Your task to perform on an android device: turn off smart reply in the gmail app Image 0: 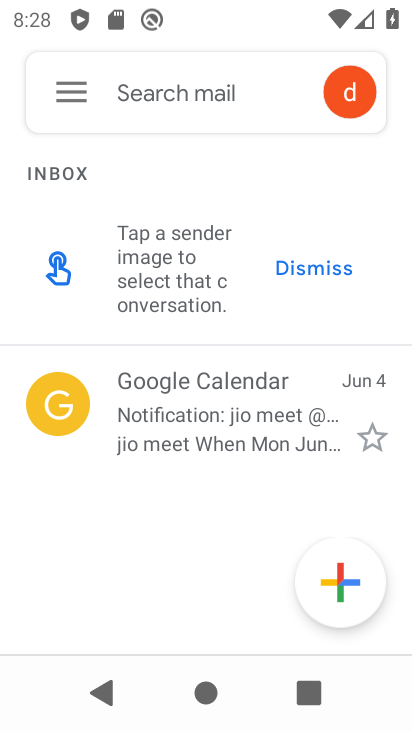
Step 0: press home button
Your task to perform on an android device: turn off smart reply in the gmail app Image 1: 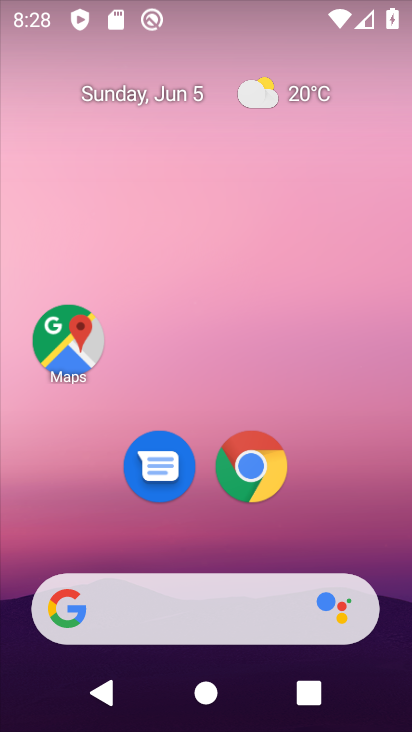
Step 1: drag from (183, 543) to (190, 350)
Your task to perform on an android device: turn off smart reply in the gmail app Image 2: 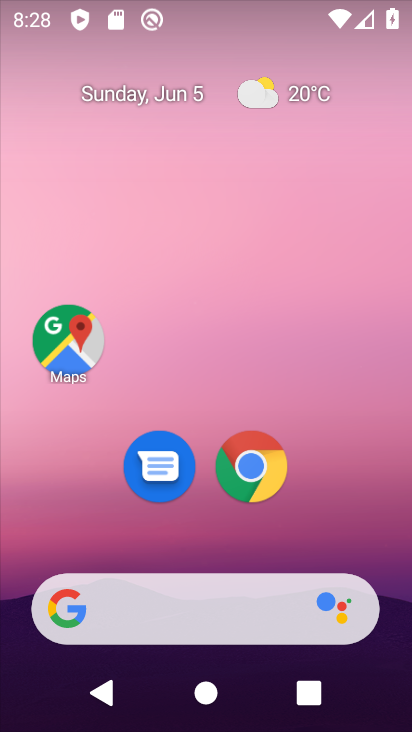
Step 2: drag from (192, 538) to (189, 81)
Your task to perform on an android device: turn off smart reply in the gmail app Image 3: 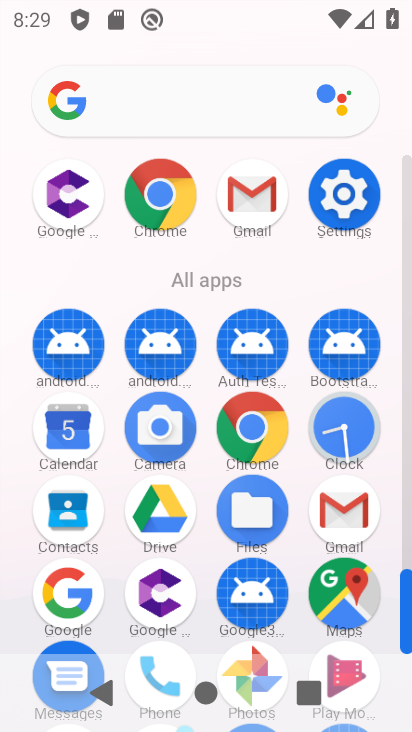
Step 3: click (324, 516)
Your task to perform on an android device: turn off smart reply in the gmail app Image 4: 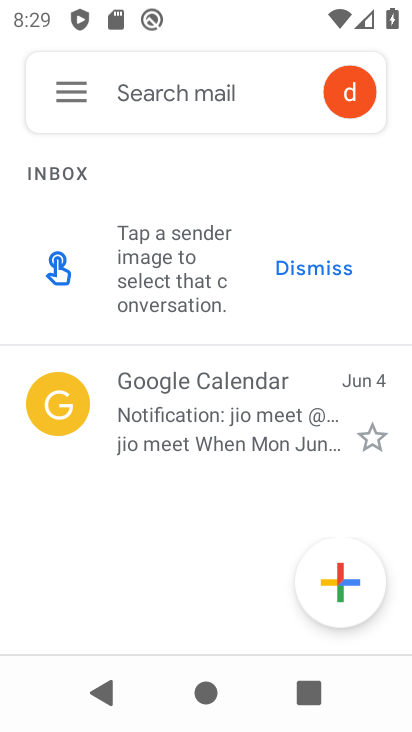
Step 4: click (71, 97)
Your task to perform on an android device: turn off smart reply in the gmail app Image 5: 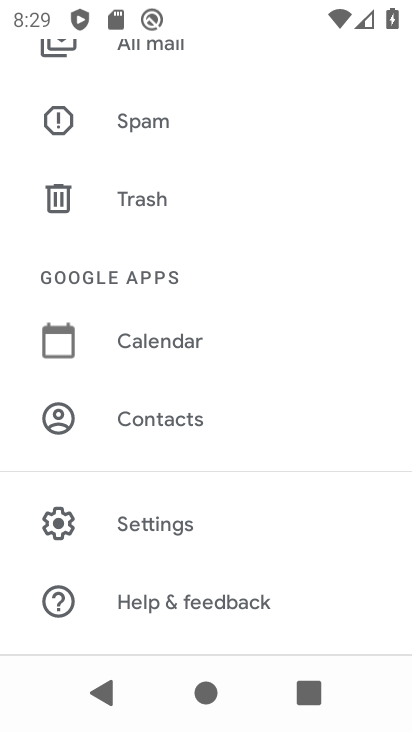
Step 5: click (133, 525)
Your task to perform on an android device: turn off smart reply in the gmail app Image 6: 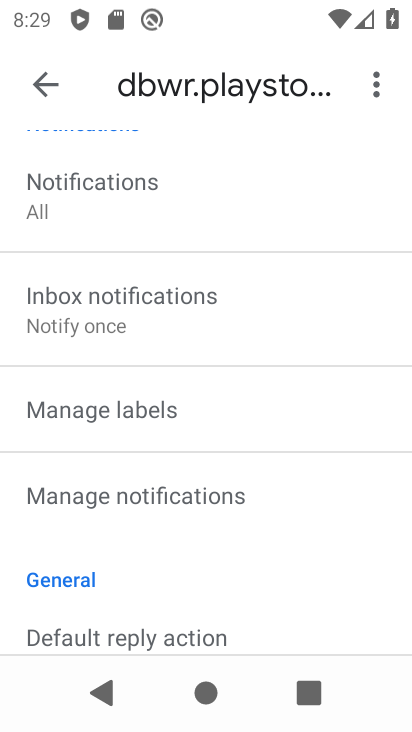
Step 6: drag from (140, 538) to (228, 99)
Your task to perform on an android device: turn off smart reply in the gmail app Image 7: 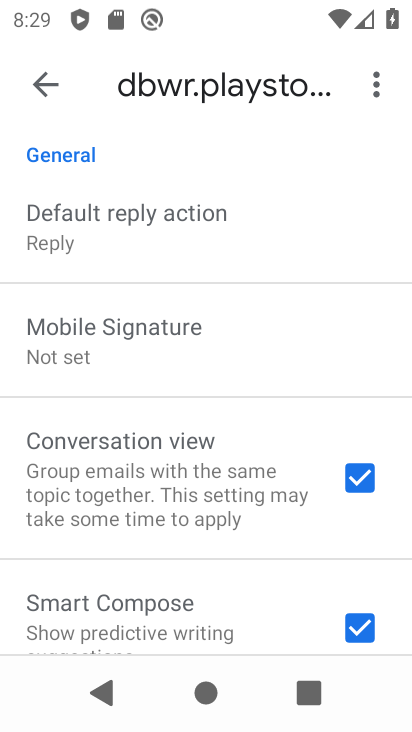
Step 7: drag from (180, 260) to (161, 566)
Your task to perform on an android device: turn off smart reply in the gmail app Image 8: 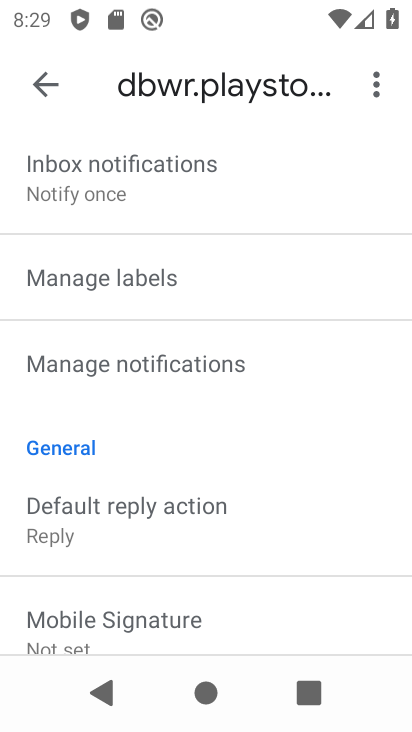
Step 8: drag from (158, 580) to (153, 211)
Your task to perform on an android device: turn off smart reply in the gmail app Image 9: 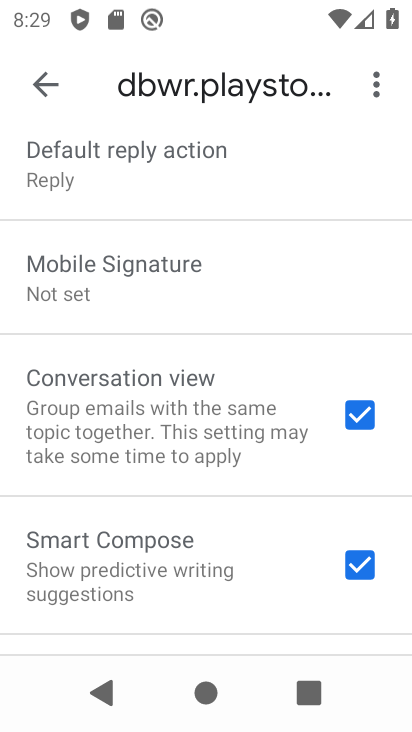
Step 9: drag from (180, 562) to (237, 251)
Your task to perform on an android device: turn off smart reply in the gmail app Image 10: 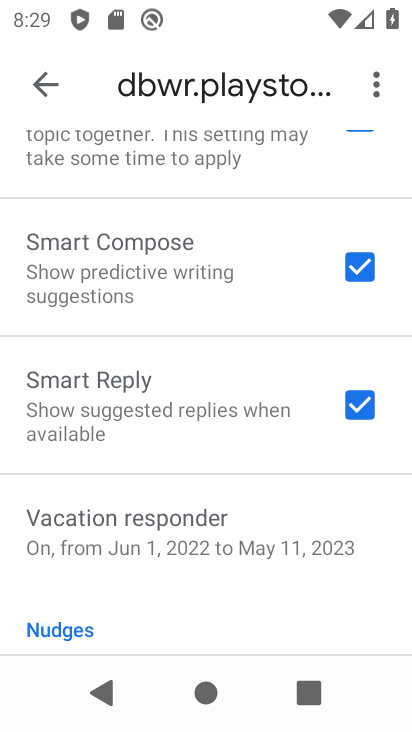
Step 10: click (359, 416)
Your task to perform on an android device: turn off smart reply in the gmail app Image 11: 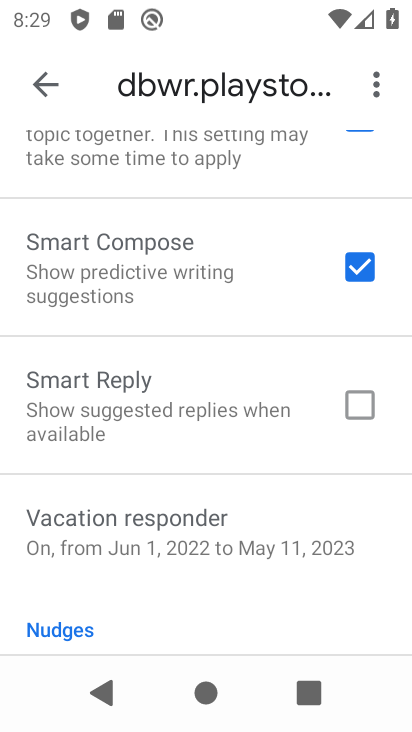
Step 11: task complete